Your task to perform on an android device: toggle data saver in the chrome app Image 0: 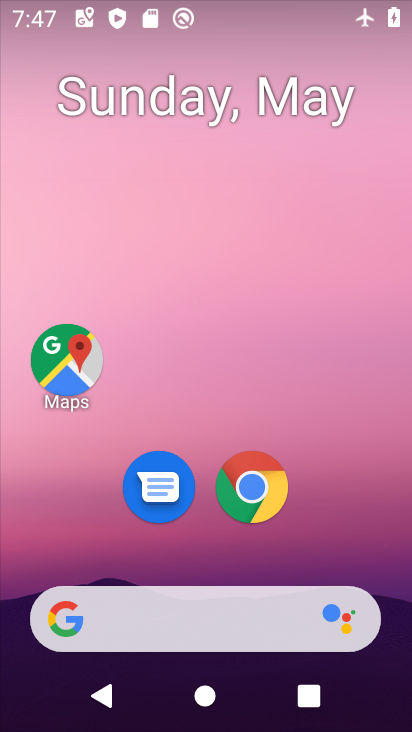
Step 0: drag from (398, 555) to (379, 127)
Your task to perform on an android device: toggle data saver in the chrome app Image 1: 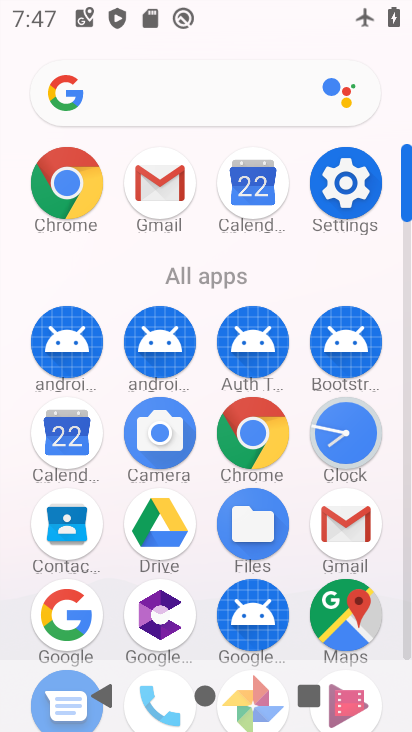
Step 1: click (243, 452)
Your task to perform on an android device: toggle data saver in the chrome app Image 2: 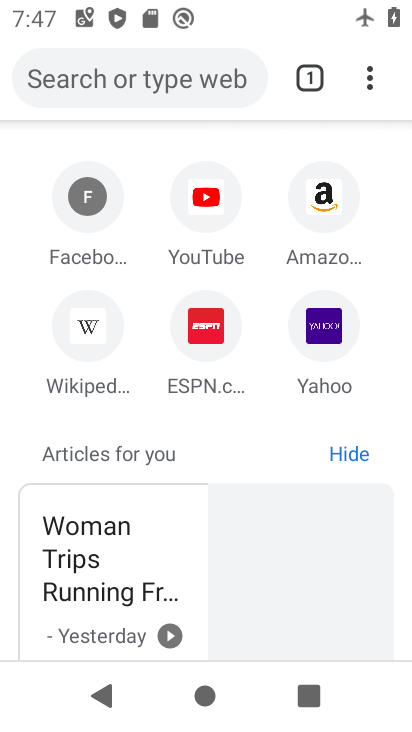
Step 2: click (370, 85)
Your task to perform on an android device: toggle data saver in the chrome app Image 3: 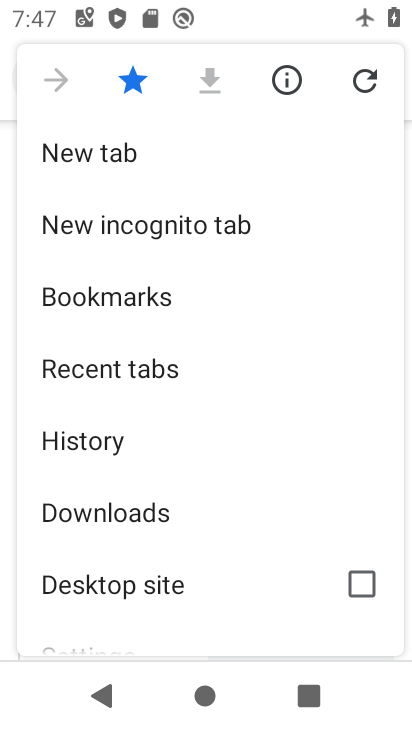
Step 3: drag from (286, 442) to (290, 396)
Your task to perform on an android device: toggle data saver in the chrome app Image 4: 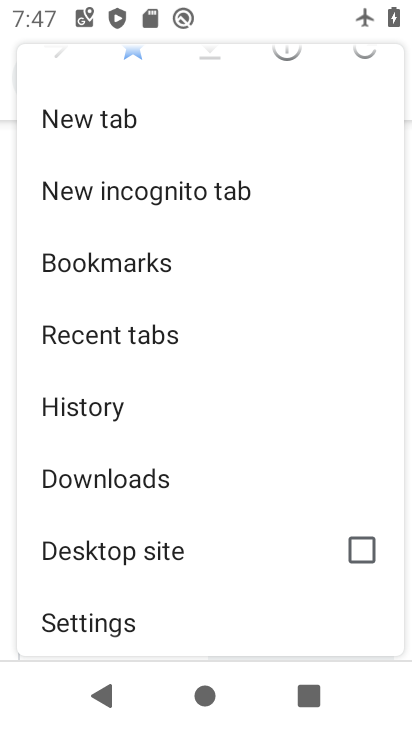
Step 4: drag from (281, 451) to (295, 387)
Your task to perform on an android device: toggle data saver in the chrome app Image 5: 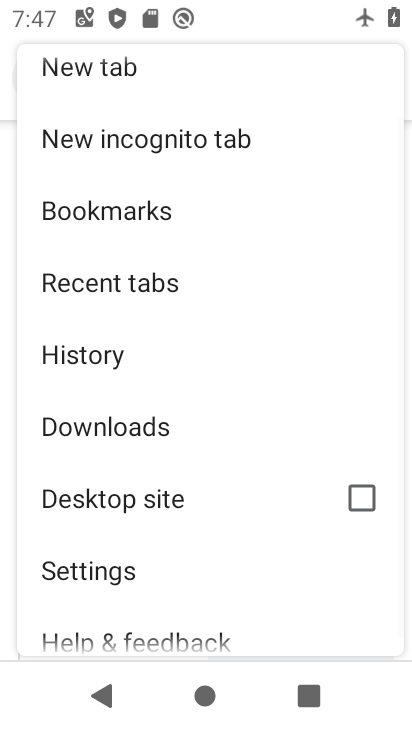
Step 5: drag from (294, 432) to (289, 377)
Your task to perform on an android device: toggle data saver in the chrome app Image 6: 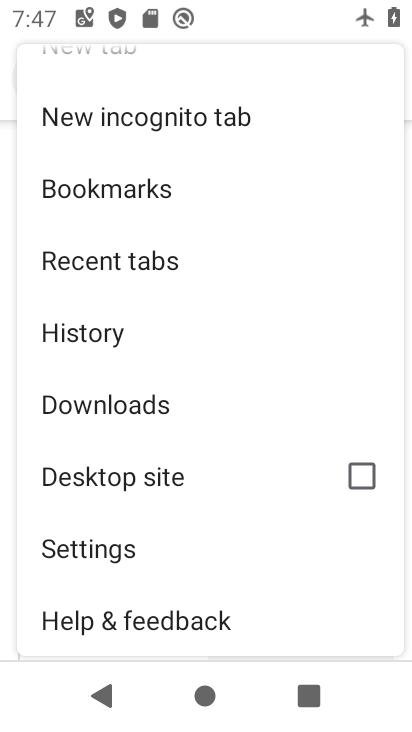
Step 6: click (171, 557)
Your task to perform on an android device: toggle data saver in the chrome app Image 7: 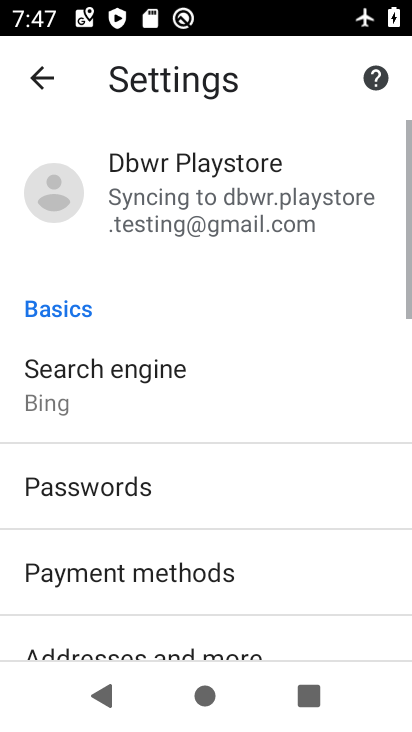
Step 7: drag from (302, 586) to (321, 535)
Your task to perform on an android device: toggle data saver in the chrome app Image 8: 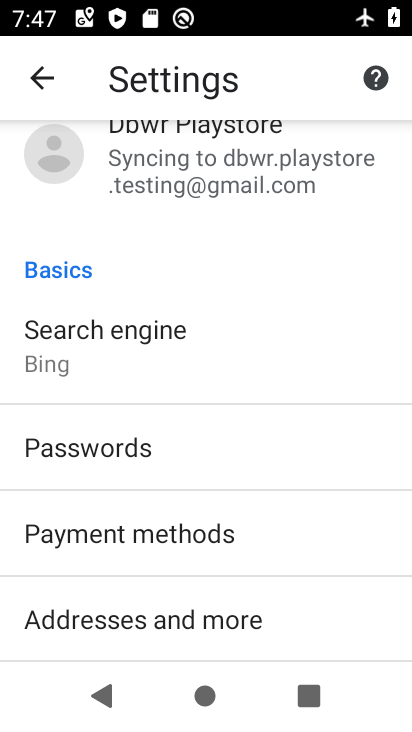
Step 8: drag from (330, 603) to (343, 562)
Your task to perform on an android device: toggle data saver in the chrome app Image 9: 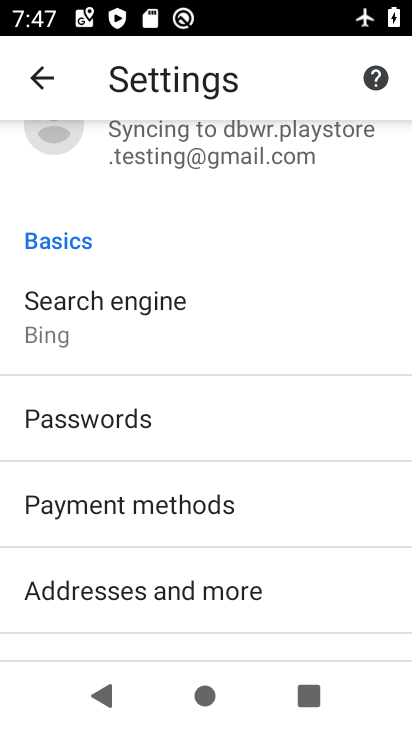
Step 9: drag from (353, 607) to (357, 568)
Your task to perform on an android device: toggle data saver in the chrome app Image 10: 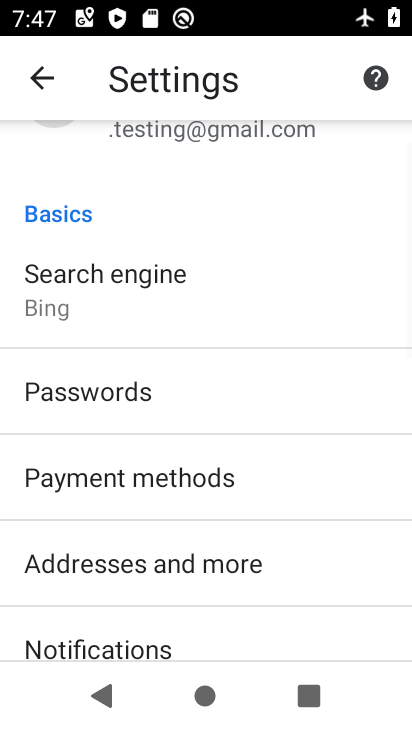
Step 10: drag from (343, 625) to (356, 582)
Your task to perform on an android device: toggle data saver in the chrome app Image 11: 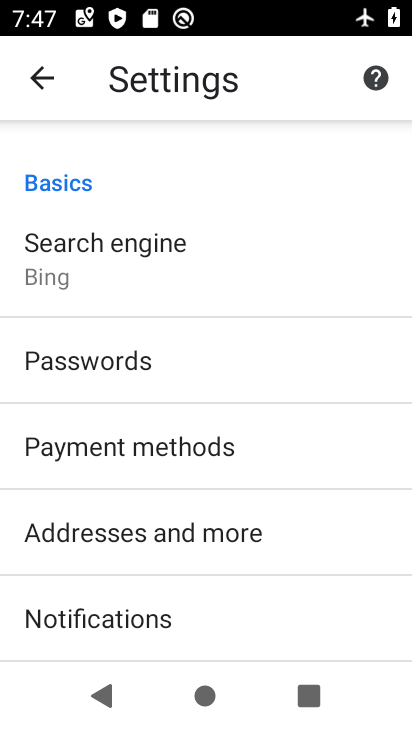
Step 11: click (352, 619)
Your task to perform on an android device: toggle data saver in the chrome app Image 12: 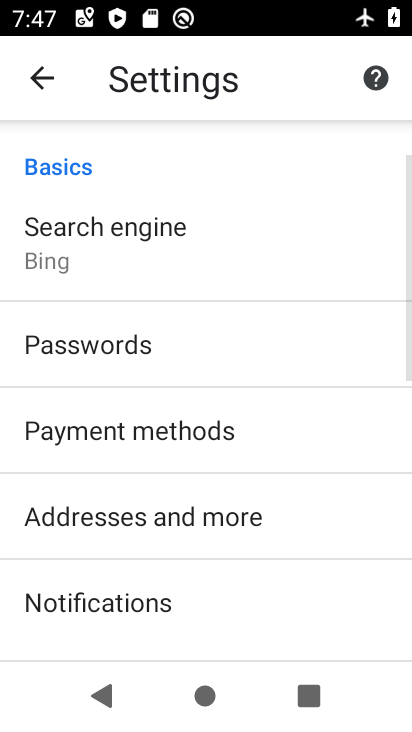
Step 12: drag from (340, 622) to (365, 516)
Your task to perform on an android device: toggle data saver in the chrome app Image 13: 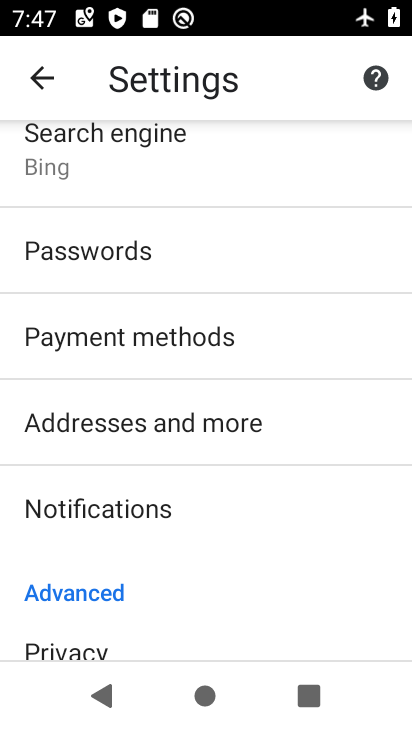
Step 13: drag from (360, 573) to (365, 509)
Your task to perform on an android device: toggle data saver in the chrome app Image 14: 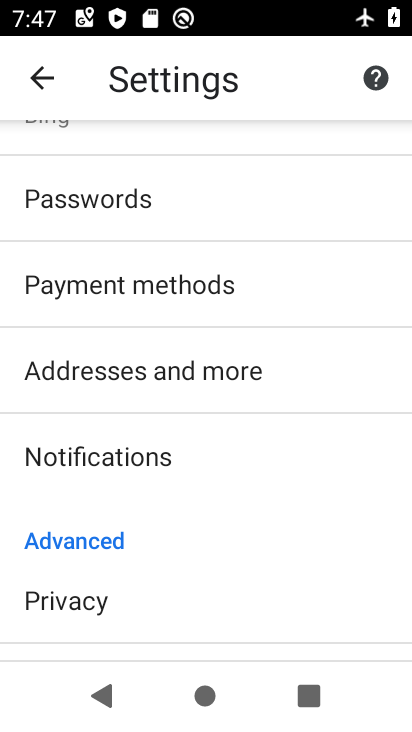
Step 14: drag from (342, 592) to (351, 511)
Your task to perform on an android device: toggle data saver in the chrome app Image 15: 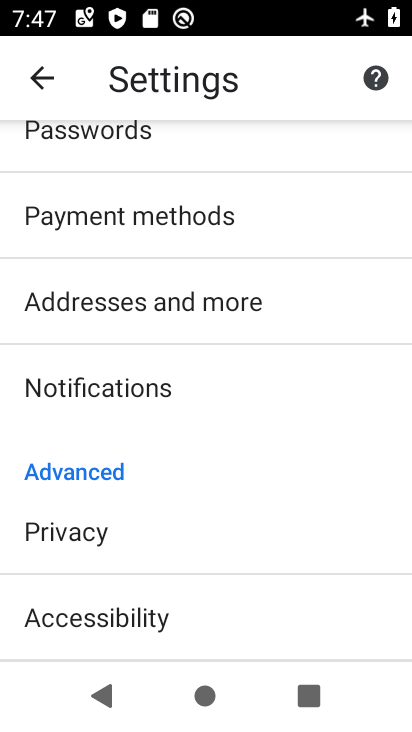
Step 15: drag from (330, 601) to (338, 539)
Your task to perform on an android device: toggle data saver in the chrome app Image 16: 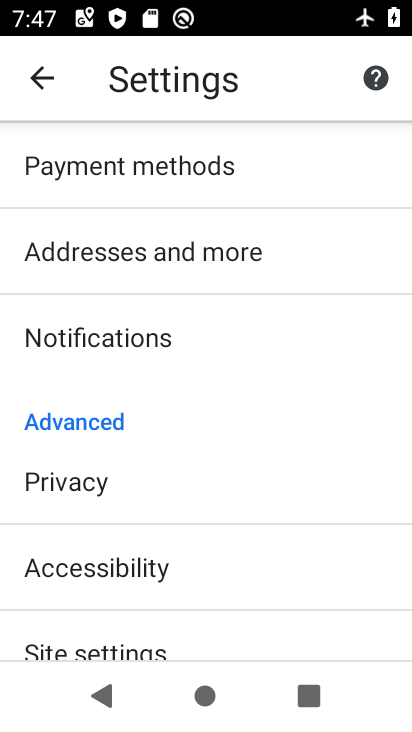
Step 16: drag from (325, 618) to (323, 558)
Your task to perform on an android device: toggle data saver in the chrome app Image 17: 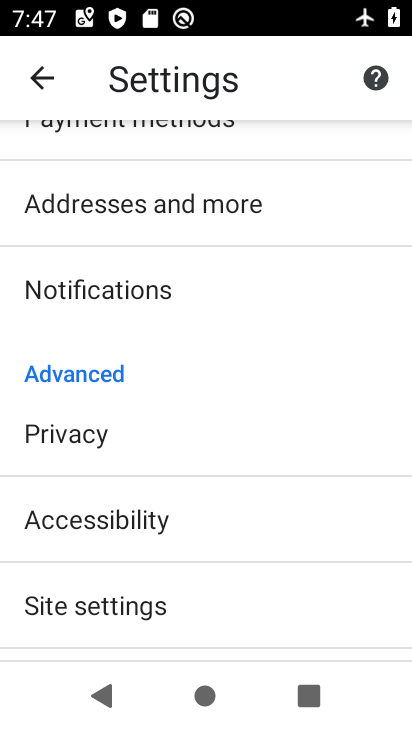
Step 17: drag from (314, 629) to (320, 542)
Your task to perform on an android device: toggle data saver in the chrome app Image 18: 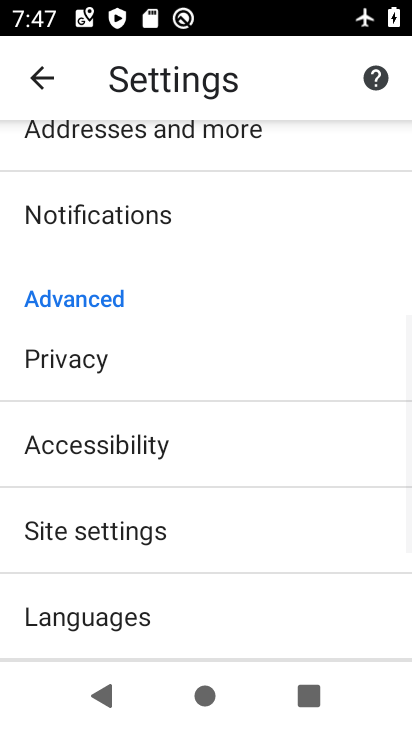
Step 18: drag from (320, 599) to (331, 536)
Your task to perform on an android device: toggle data saver in the chrome app Image 19: 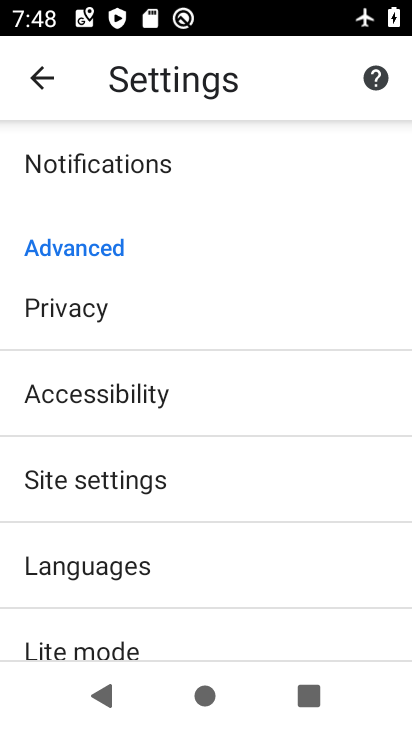
Step 19: drag from (315, 591) to (323, 526)
Your task to perform on an android device: toggle data saver in the chrome app Image 20: 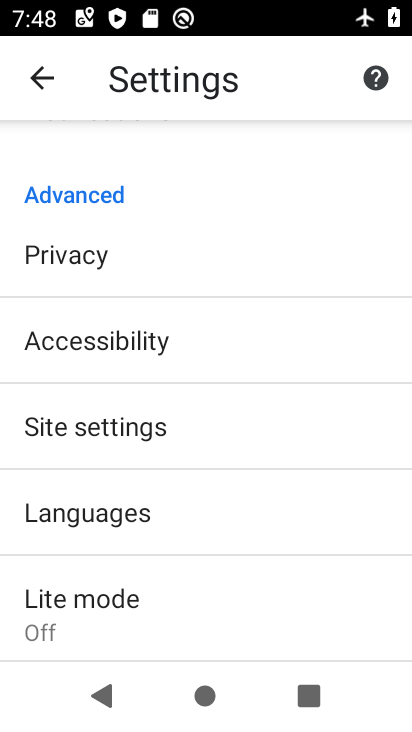
Step 20: drag from (310, 602) to (310, 538)
Your task to perform on an android device: toggle data saver in the chrome app Image 21: 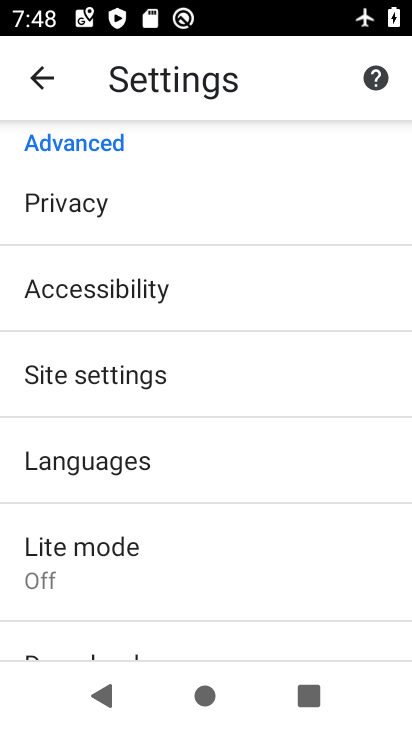
Step 21: drag from (311, 601) to (315, 523)
Your task to perform on an android device: toggle data saver in the chrome app Image 22: 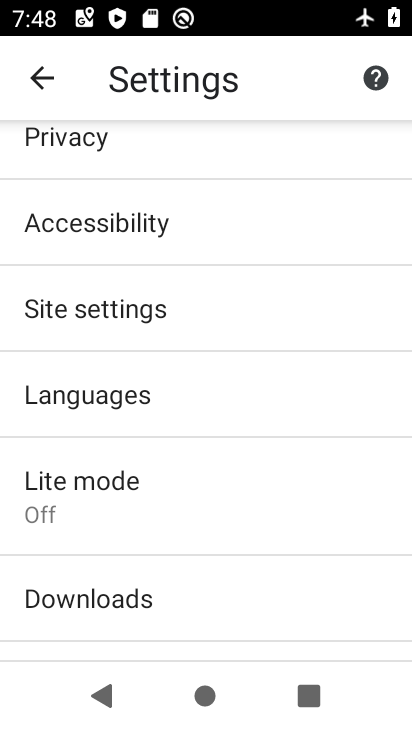
Step 22: drag from (318, 611) to (330, 545)
Your task to perform on an android device: toggle data saver in the chrome app Image 23: 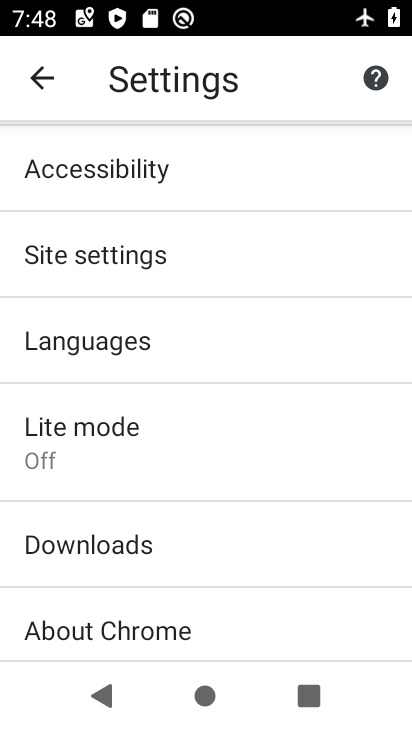
Step 23: drag from (322, 608) to (319, 537)
Your task to perform on an android device: toggle data saver in the chrome app Image 24: 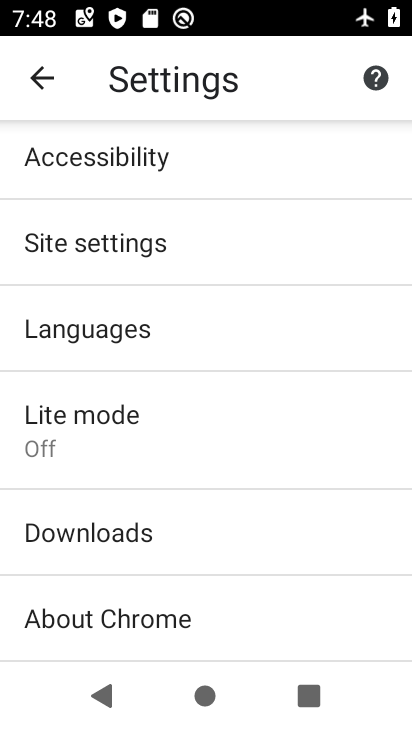
Step 24: drag from (333, 596) to (327, 462)
Your task to perform on an android device: toggle data saver in the chrome app Image 25: 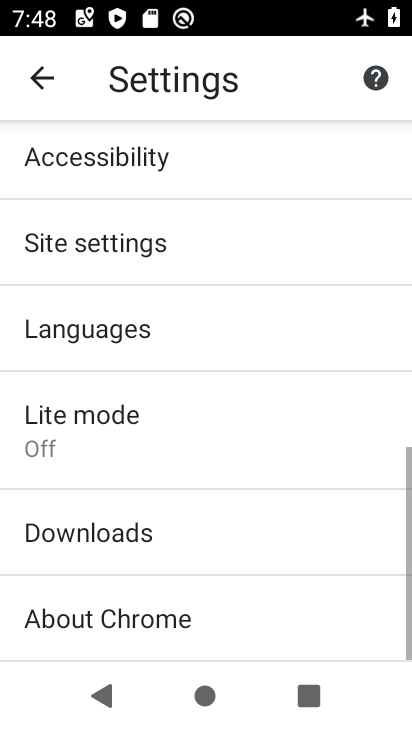
Step 25: drag from (328, 399) to (332, 466)
Your task to perform on an android device: toggle data saver in the chrome app Image 26: 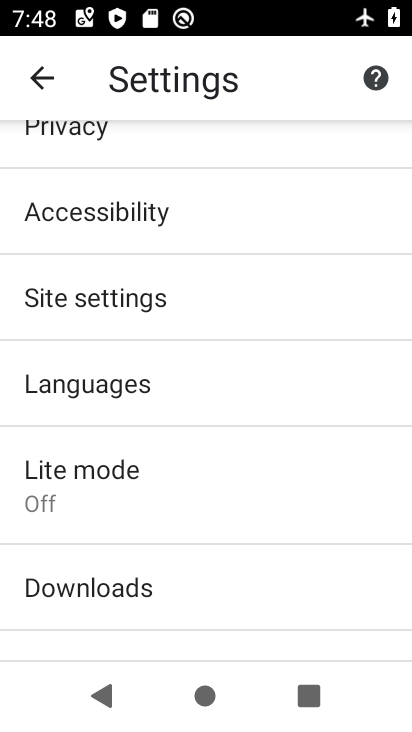
Step 26: click (243, 483)
Your task to perform on an android device: toggle data saver in the chrome app Image 27: 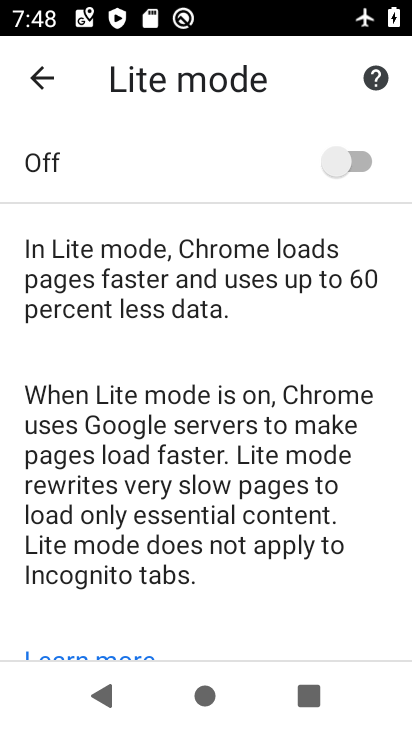
Step 27: click (348, 151)
Your task to perform on an android device: toggle data saver in the chrome app Image 28: 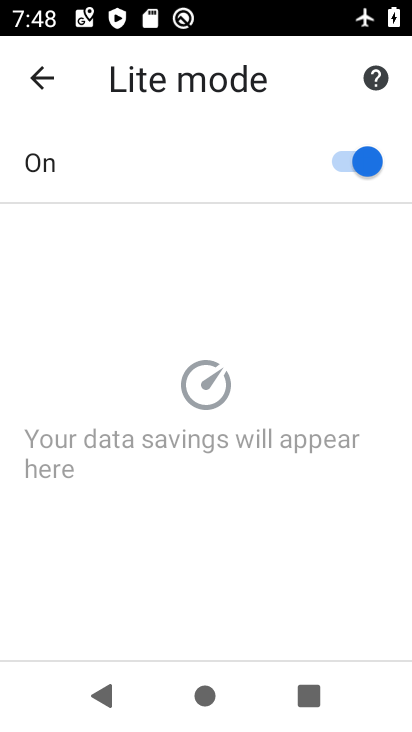
Step 28: task complete